Your task to perform on an android device: all mails in gmail Image 0: 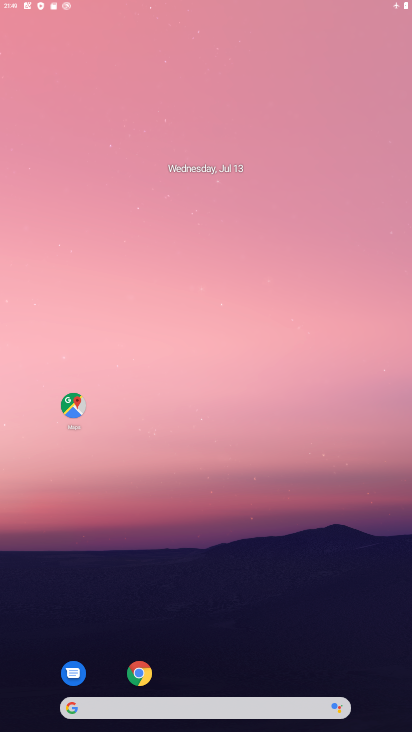
Step 0: click (257, 113)
Your task to perform on an android device: all mails in gmail Image 1: 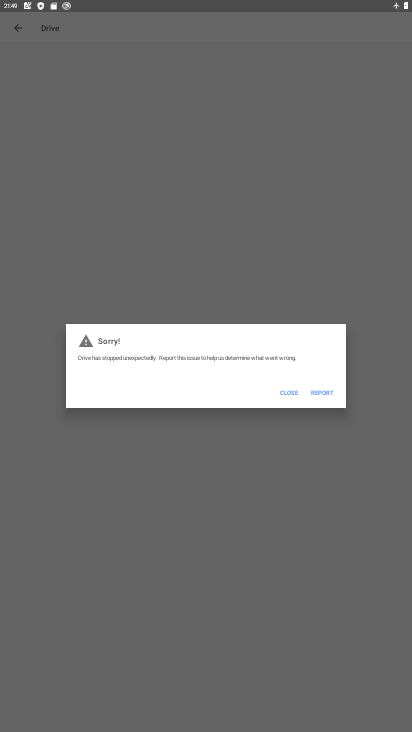
Step 1: press home button
Your task to perform on an android device: all mails in gmail Image 2: 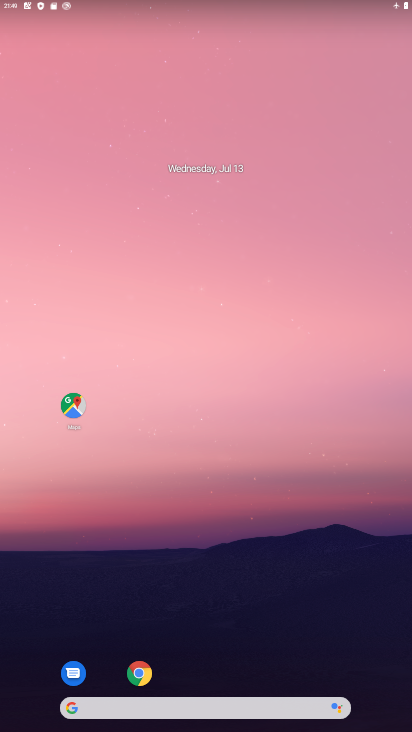
Step 2: drag from (216, 665) to (191, 200)
Your task to perform on an android device: all mails in gmail Image 3: 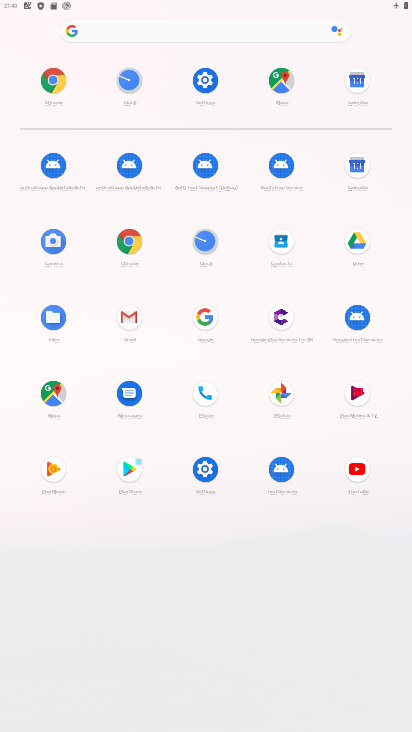
Step 3: click (132, 319)
Your task to perform on an android device: all mails in gmail Image 4: 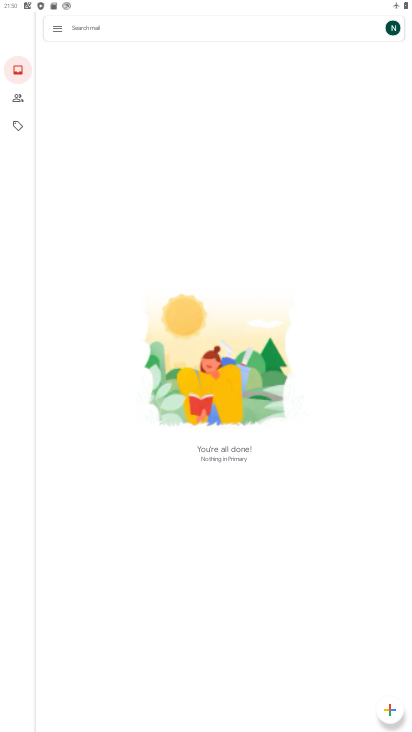
Step 4: click (59, 20)
Your task to perform on an android device: all mails in gmail Image 5: 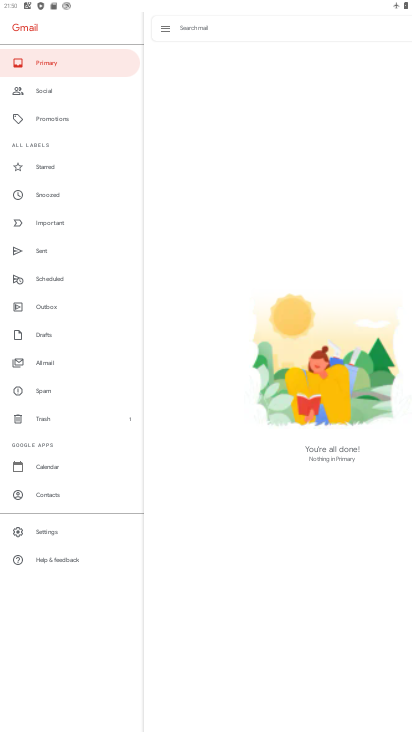
Step 5: click (59, 361)
Your task to perform on an android device: all mails in gmail Image 6: 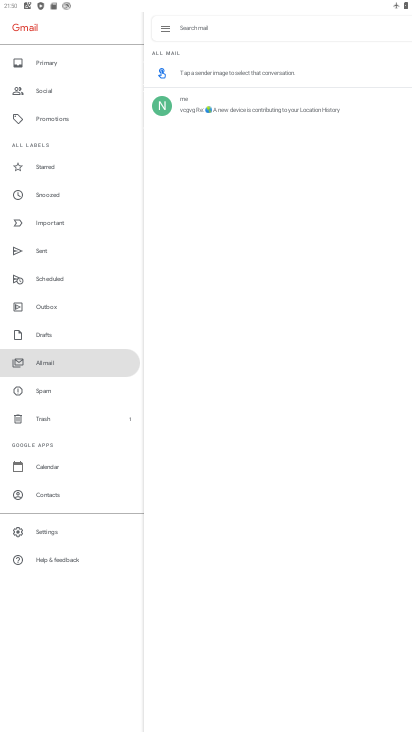
Step 6: task complete